Your task to perform on an android device: change keyboard looks Image 0: 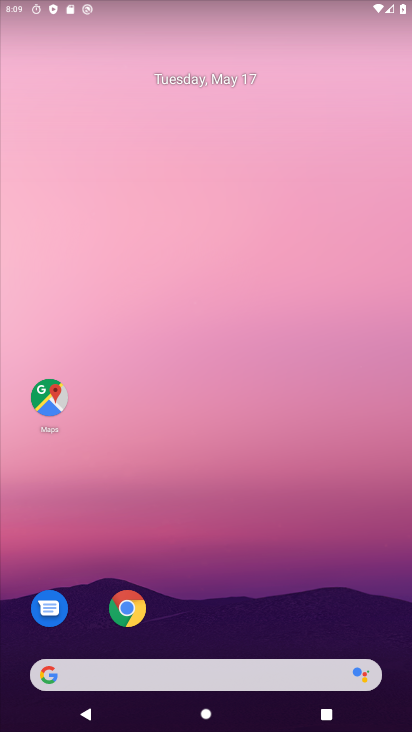
Step 0: drag from (391, 596) to (288, 120)
Your task to perform on an android device: change keyboard looks Image 1: 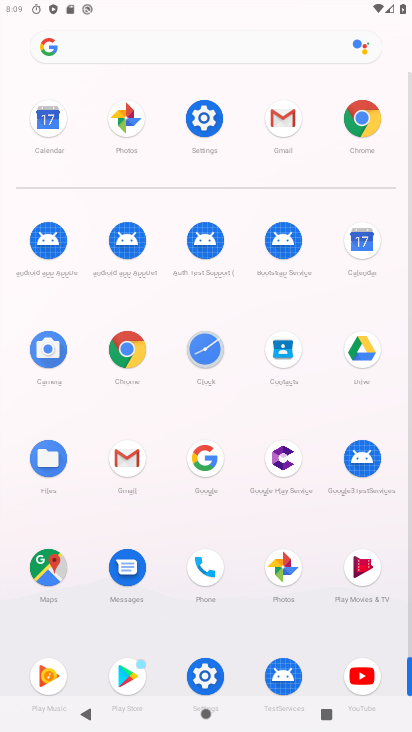
Step 1: click (200, 668)
Your task to perform on an android device: change keyboard looks Image 2: 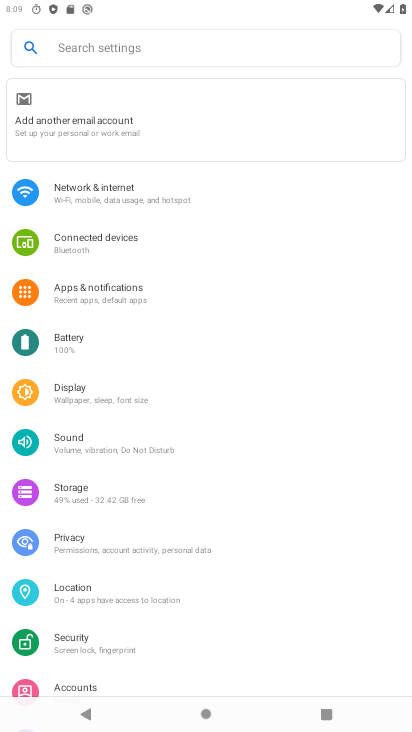
Step 2: drag from (151, 660) to (255, 254)
Your task to perform on an android device: change keyboard looks Image 3: 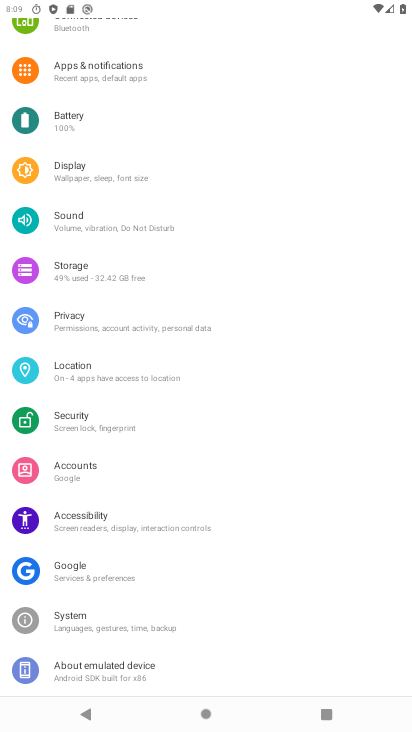
Step 3: click (108, 626)
Your task to perform on an android device: change keyboard looks Image 4: 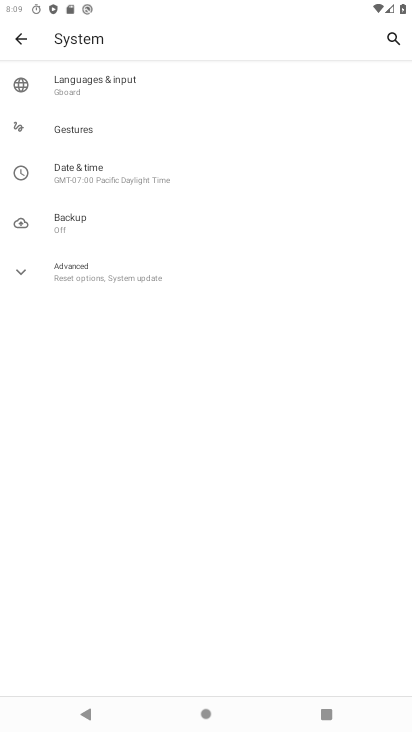
Step 4: click (156, 90)
Your task to perform on an android device: change keyboard looks Image 5: 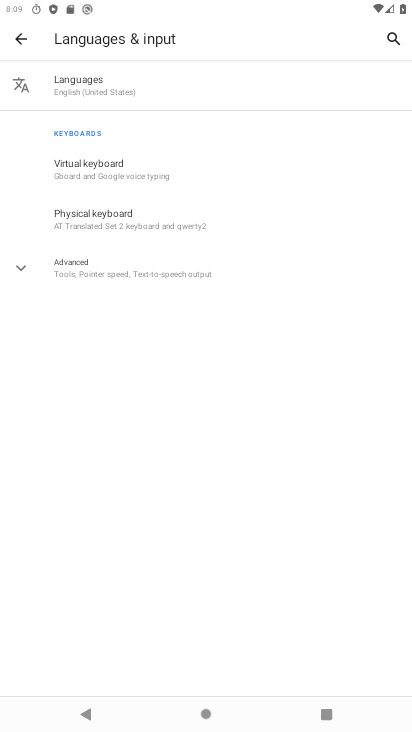
Step 5: click (134, 164)
Your task to perform on an android device: change keyboard looks Image 6: 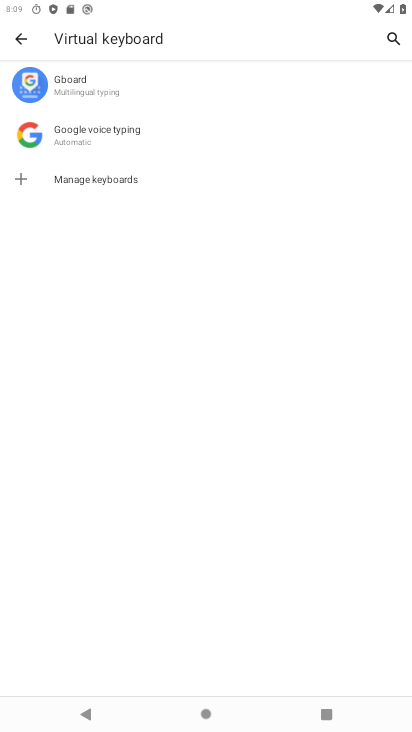
Step 6: click (132, 93)
Your task to perform on an android device: change keyboard looks Image 7: 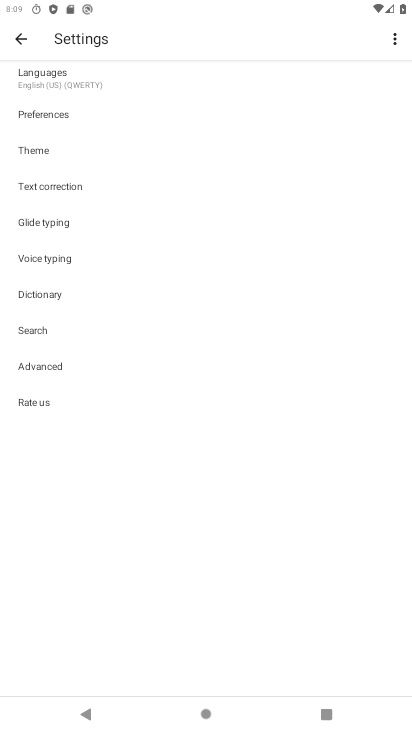
Step 7: click (62, 145)
Your task to perform on an android device: change keyboard looks Image 8: 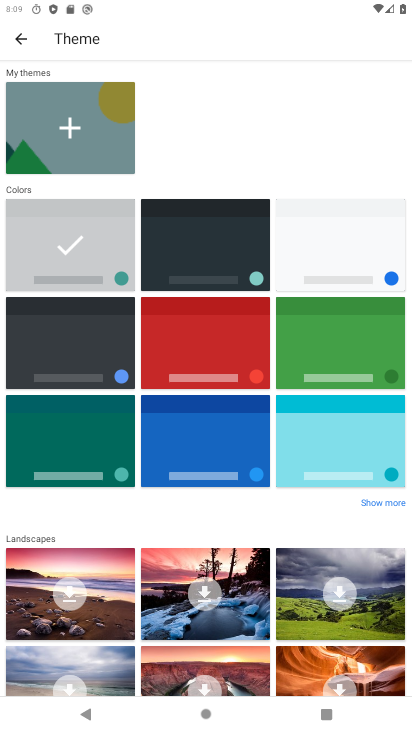
Step 8: click (216, 459)
Your task to perform on an android device: change keyboard looks Image 9: 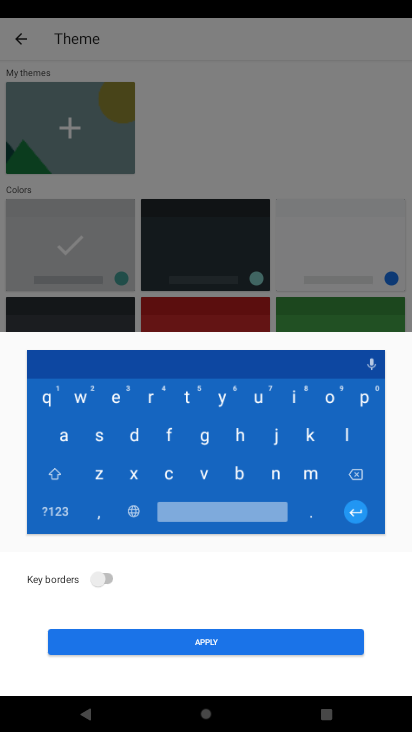
Step 9: click (109, 576)
Your task to perform on an android device: change keyboard looks Image 10: 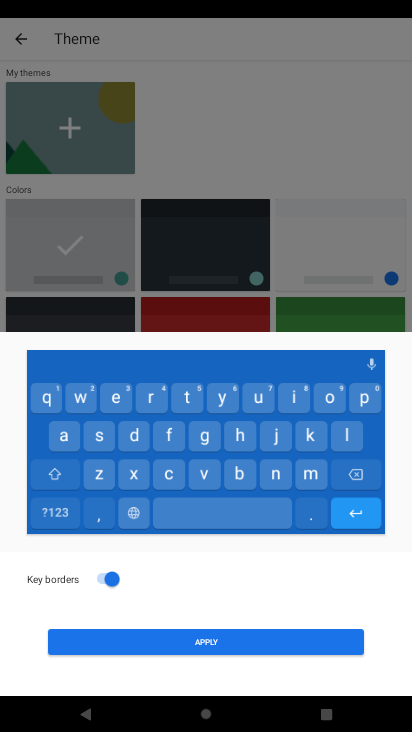
Step 10: click (132, 640)
Your task to perform on an android device: change keyboard looks Image 11: 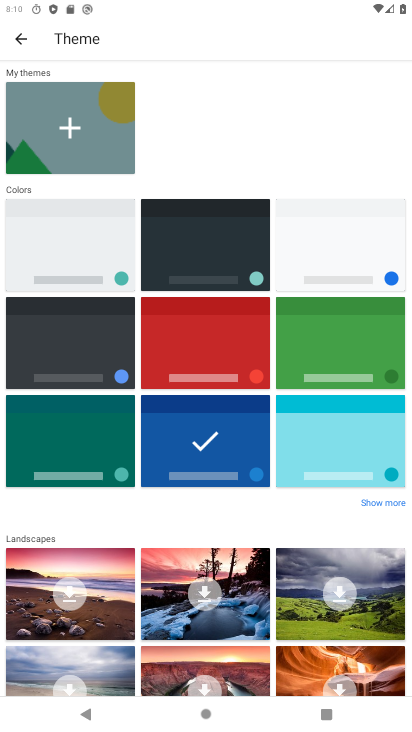
Step 11: task complete